Your task to perform on an android device: turn off smart reply in the gmail app Image 0: 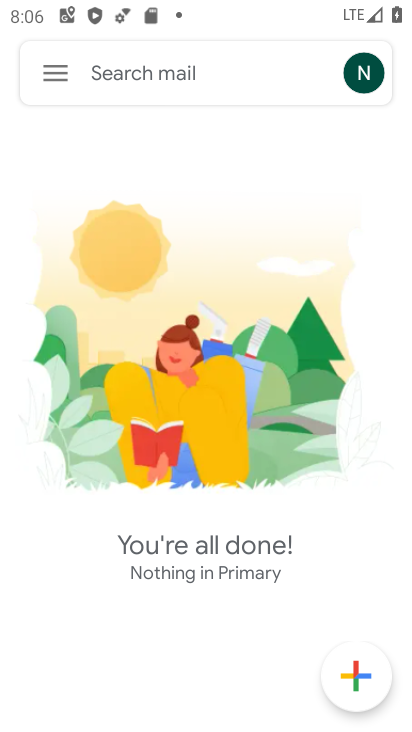
Step 0: press home button
Your task to perform on an android device: turn off smart reply in the gmail app Image 1: 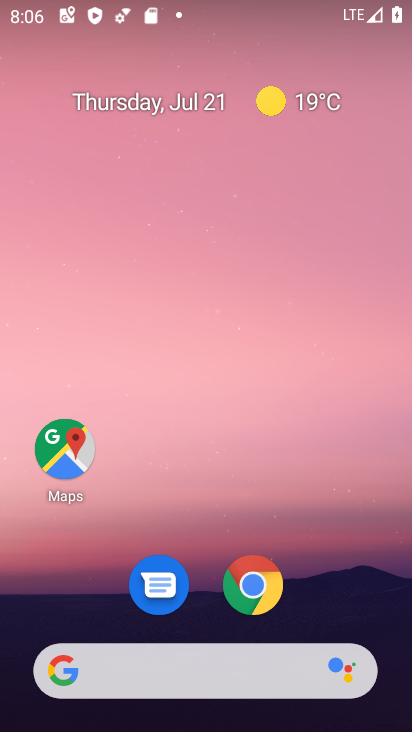
Step 1: drag from (278, 503) to (262, 32)
Your task to perform on an android device: turn off smart reply in the gmail app Image 2: 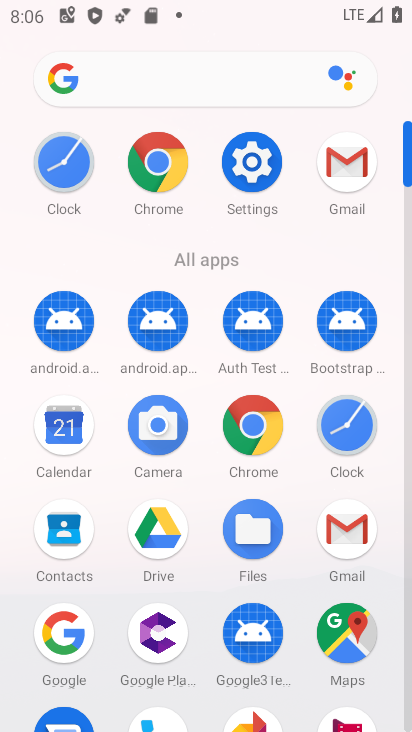
Step 2: click (349, 170)
Your task to perform on an android device: turn off smart reply in the gmail app Image 3: 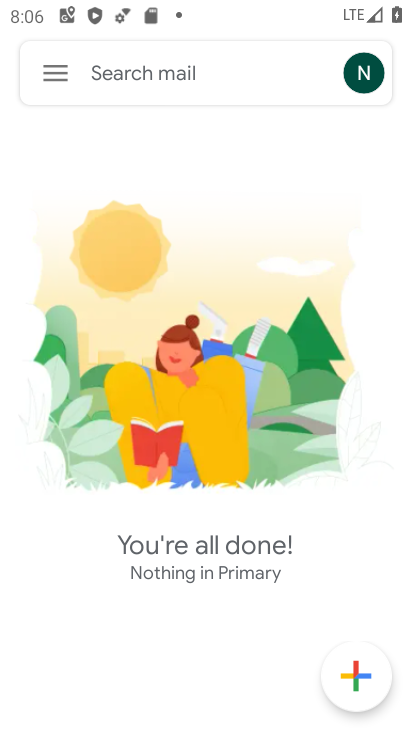
Step 3: click (60, 73)
Your task to perform on an android device: turn off smart reply in the gmail app Image 4: 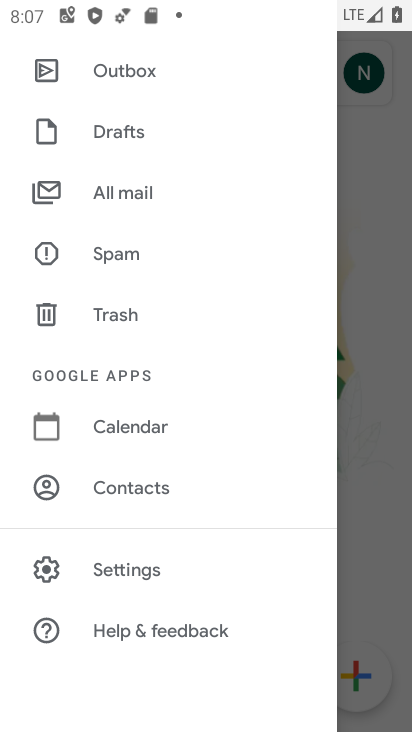
Step 4: click (126, 574)
Your task to perform on an android device: turn off smart reply in the gmail app Image 5: 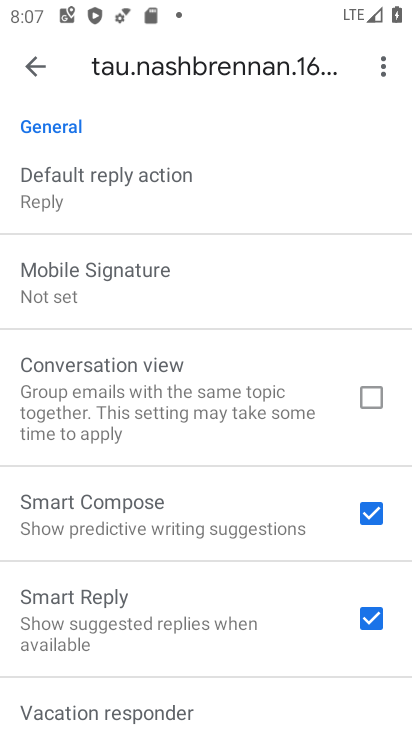
Step 5: click (376, 622)
Your task to perform on an android device: turn off smart reply in the gmail app Image 6: 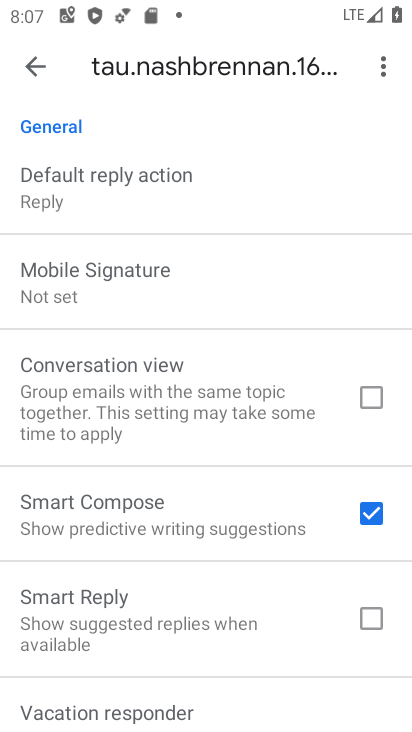
Step 6: task complete